Your task to perform on an android device: check google app version Image 0: 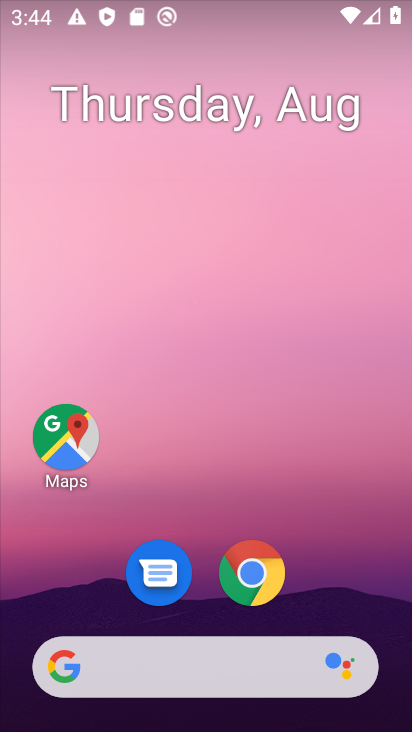
Step 0: click (171, 214)
Your task to perform on an android device: check google app version Image 1: 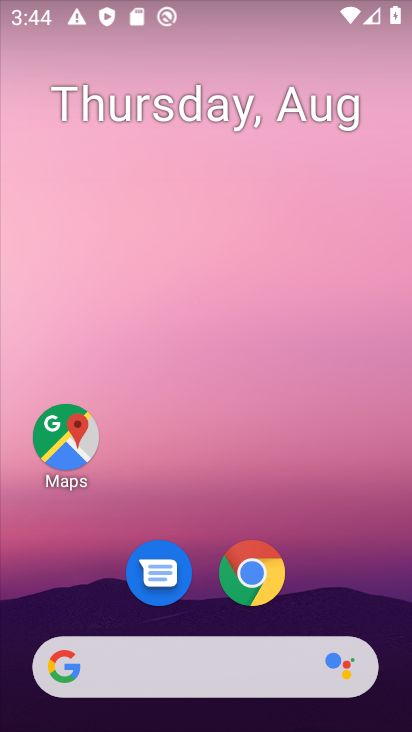
Step 1: drag from (203, 641) to (151, 261)
Your task to perform on an android device: check google app version Image 2: 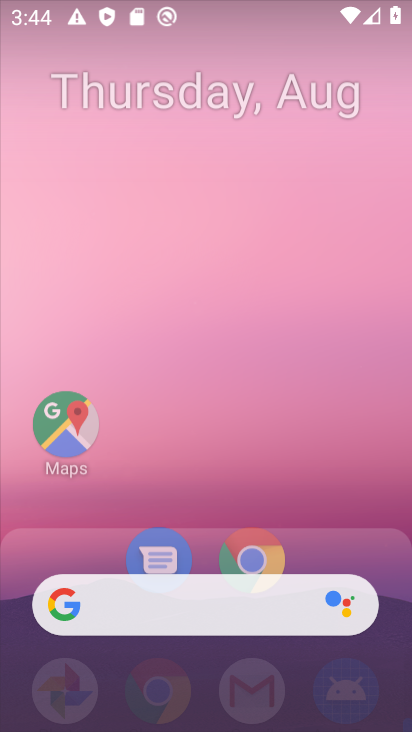
Step 2: drag from (199, 571) to (185, 235)
Your task to perform on an android device: check google app version Image 3: 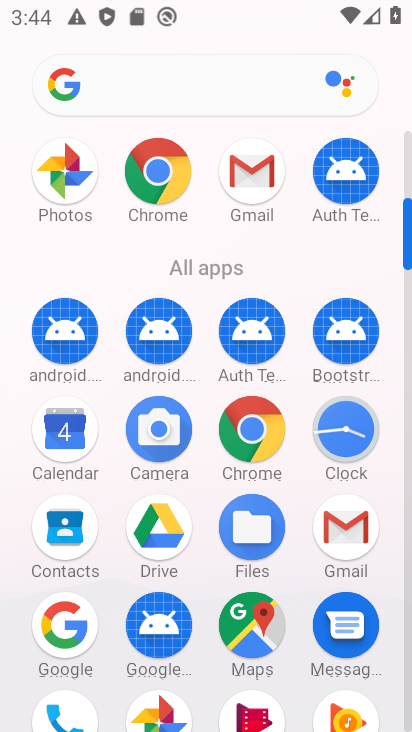
Step 3: drag from (243, 512) to (243, 157)
Your task to perform on an android device: check google app version Image 4: 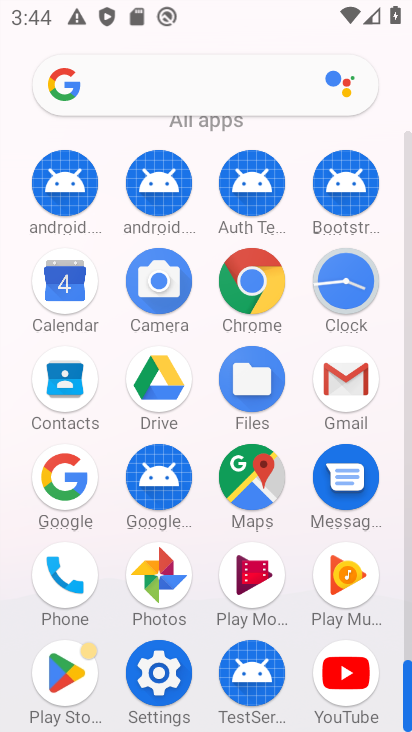
Step 4: click (73, 484)
Your task to perform on an android device: check google app version Image 5: 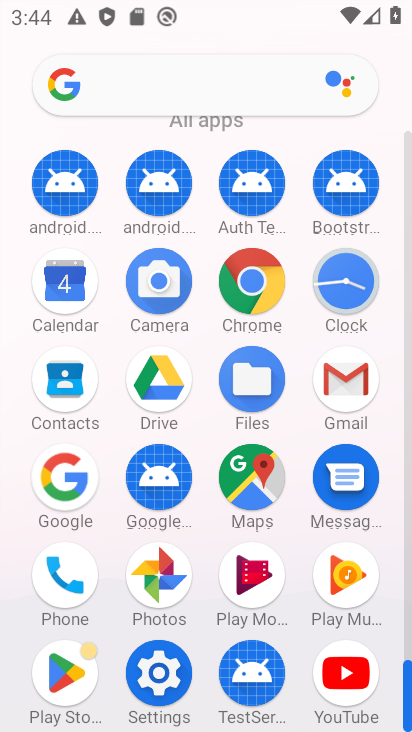
Step 5: click (73, 484)
Your task to perform on an android device: check google app version Image 6: 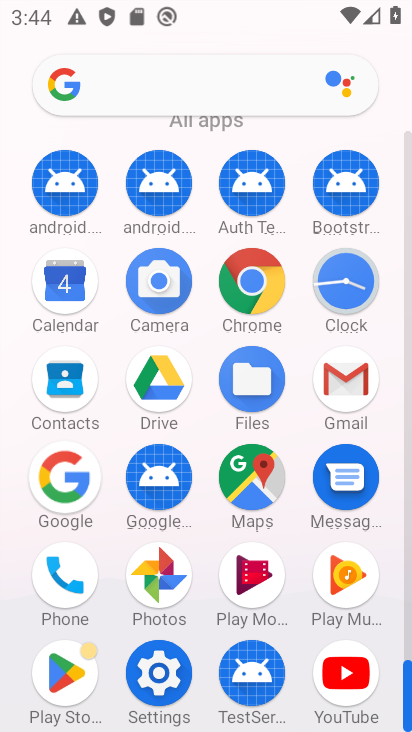
Step 6: click (74, 486)
Your task to perform on an android device: check google app version Image 7: 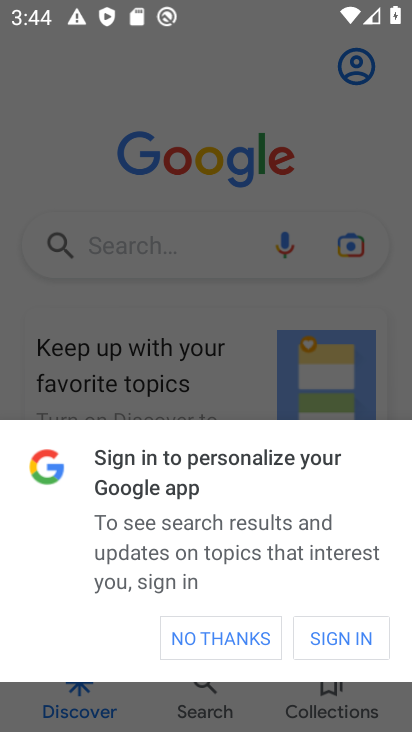
Step 7: click (214, 647)
Your task to perform on an android device: check google app version Image 8: 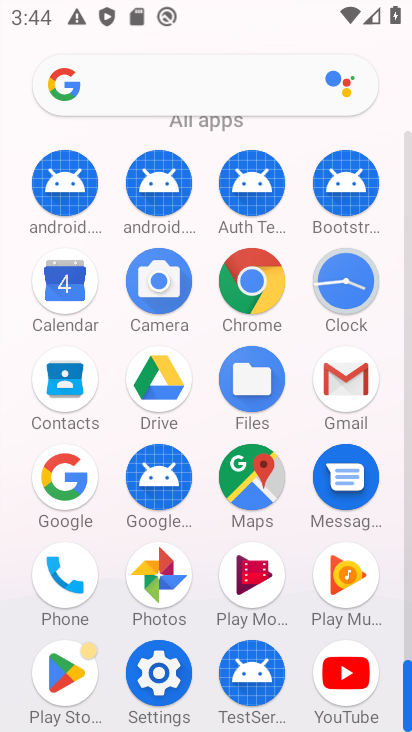
Step 8: drag from (242, 585) to (212, 247)
Your task to perform on an android device: check google app version Image 9: 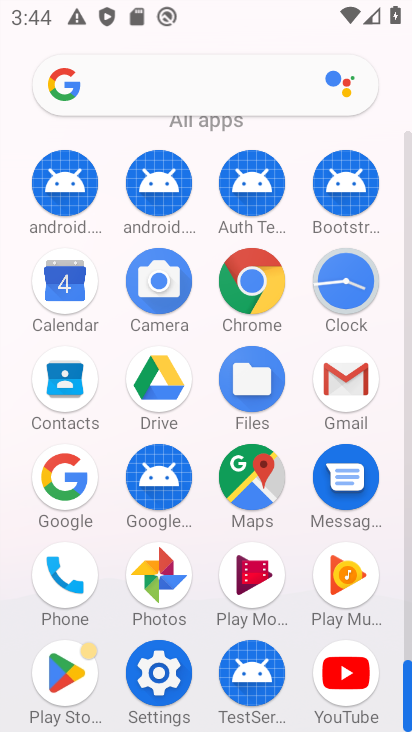
Step 9: click (65, 487)
Your task to perform on an android device: check google app version Image 10: 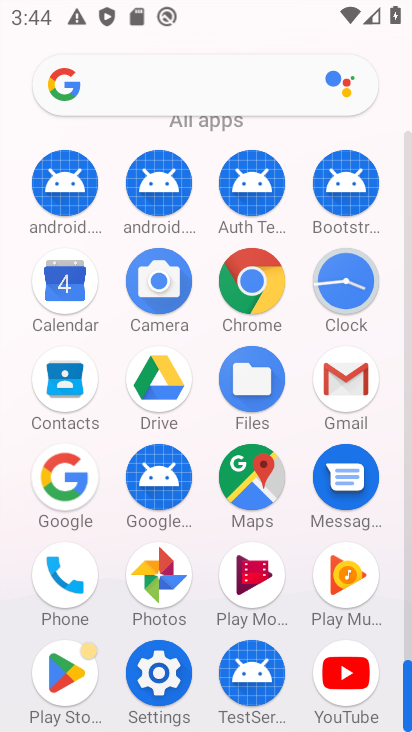
Step 10: click (65, 487)
Your task to perform on an android device: check google app version Image 11: 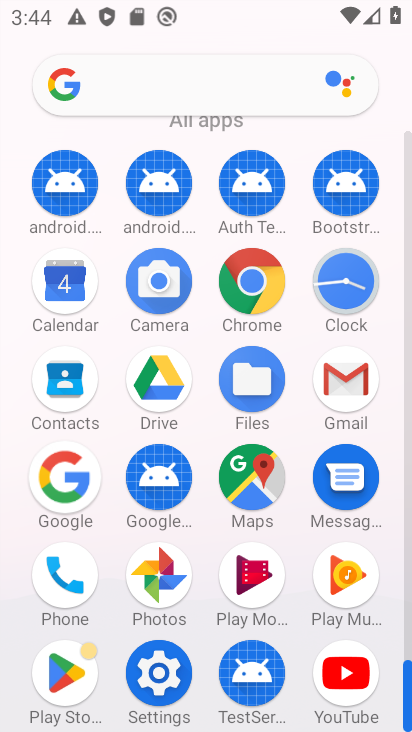
Step 11: click (65, 487)
Your task to perform on an android device: check google app version Image 12: 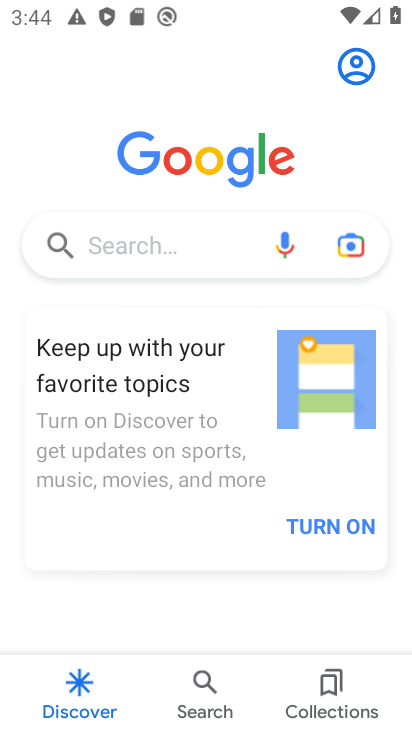
Step 12: task complete